Your task to perform on an android device: Open Youtube and go to the subscriptions tab Image 0: 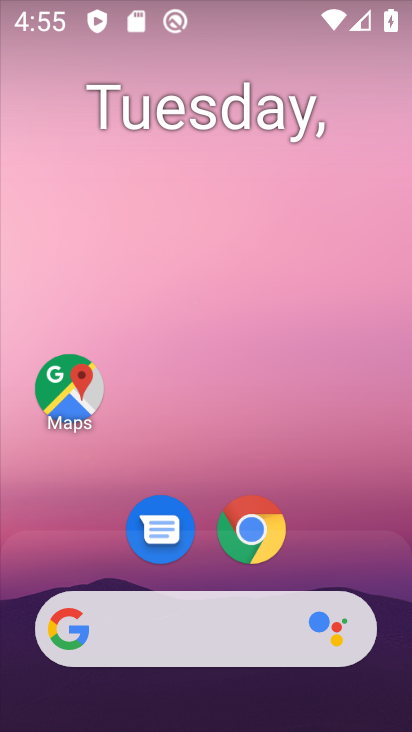
Step 0: drag from (314, 365) to (293, 213)
Your task to perform on an android device: Open Youtube and go to the subscriptions tab Image 1: 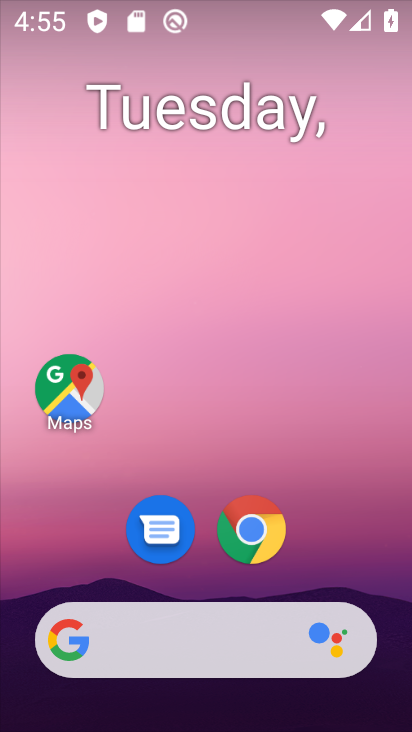
Step 1: drag from (312, 350) to (290, 240)
Your task to perform on an android device: Open Youtube and go to the subscriptions tab Image 2: 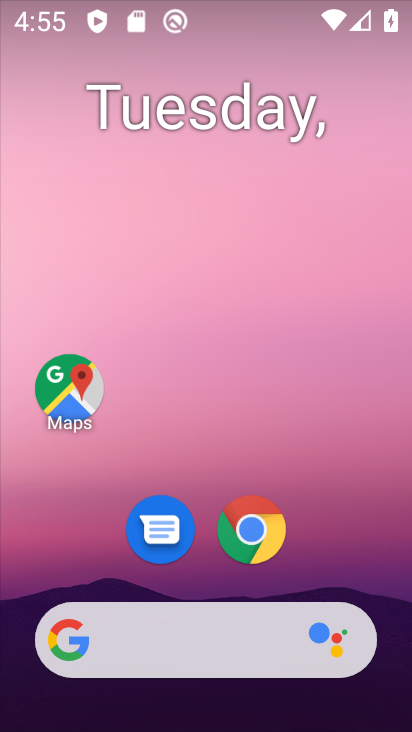
Step 2: drag from (372, 554) to (297, 140)
Your task to perform on an android device: Open Youtube and go to the subscriptions tab Image 3: 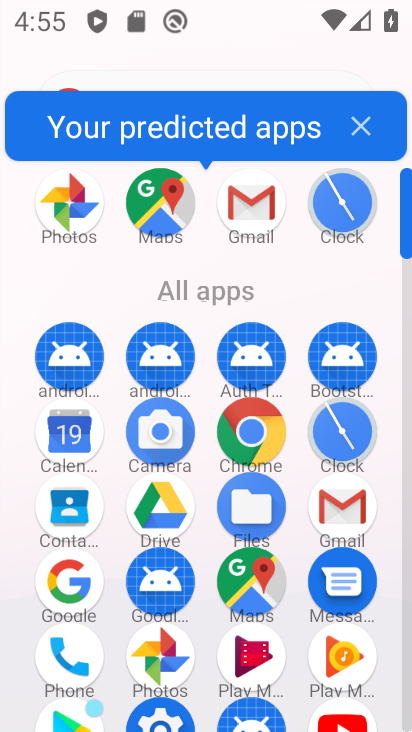
Step 3: click (346, 719)
Your task to perform on an android device: Open Youtube and go to the subscriptions tab Image 4: 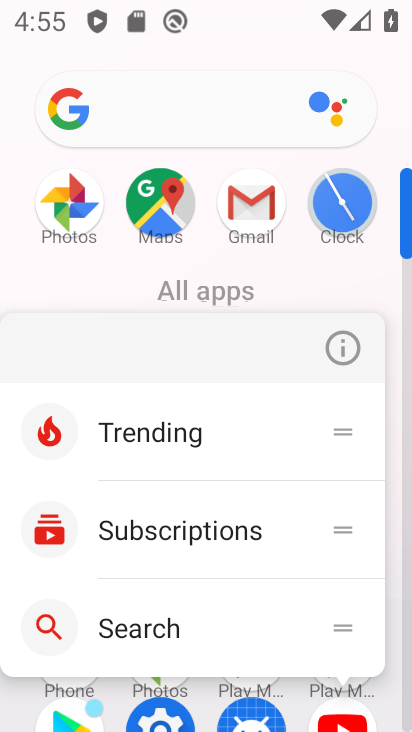
Step 4: click (329, 708)
Your task to perform on an android device: Open Youtube and go to the subscriptions tab Image 5: 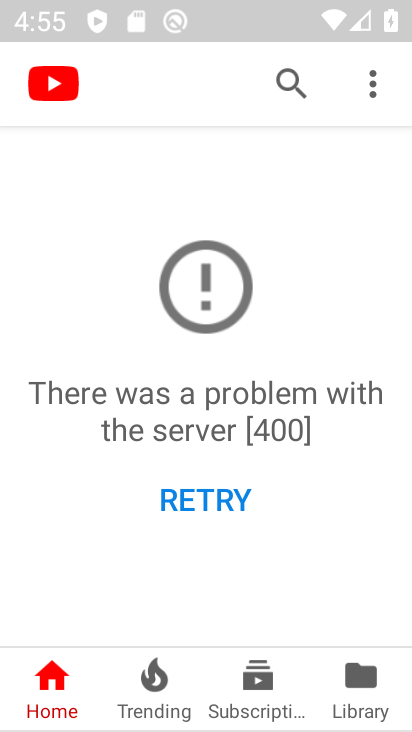
Step 5: click (370, 85)
Your task to perform on an android device: Open Youtube and go to the subscriptions tab Image 6: 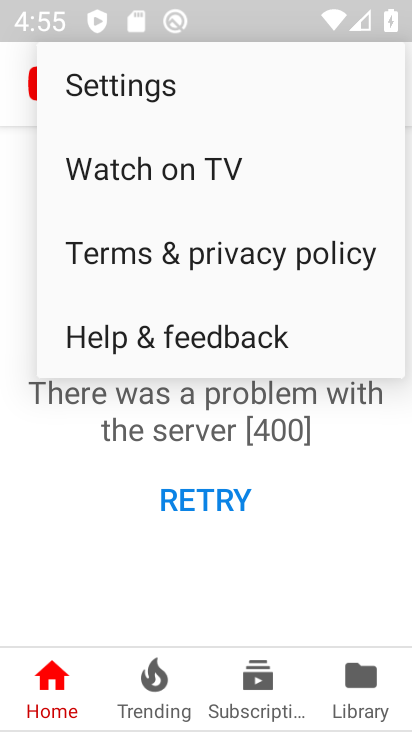
Step 6: click (246, 675)
Your task to perform on an android device: Open Youtube and go to the subscriptions tab Image 7: 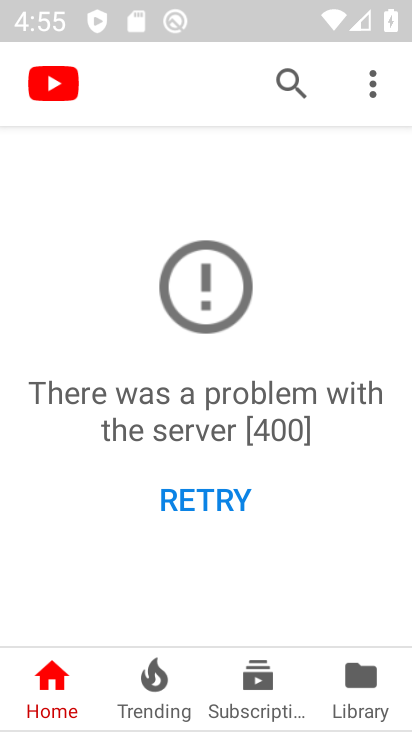
Step 7: click (246, 675)
Your task to perform on an android device: Open Youtube and go to the subscriptions tab Image 8: 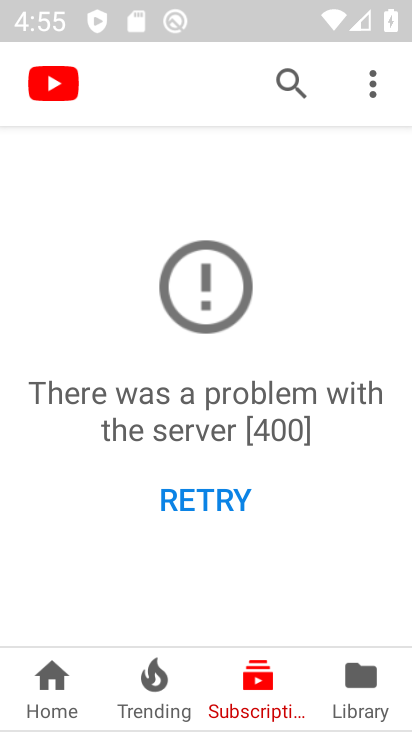
Step 8: task complete